Your task to perform on an android device: Go to ESPN.com Image 0: 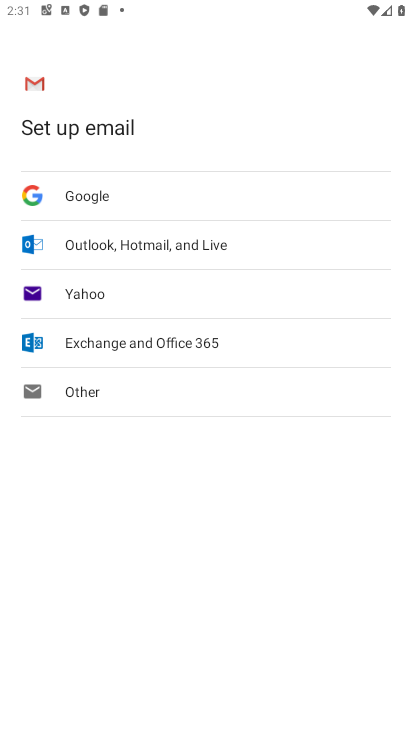
Step 0: press home button
Your task to perform on an android device: Go to ESPN.com Image 1: 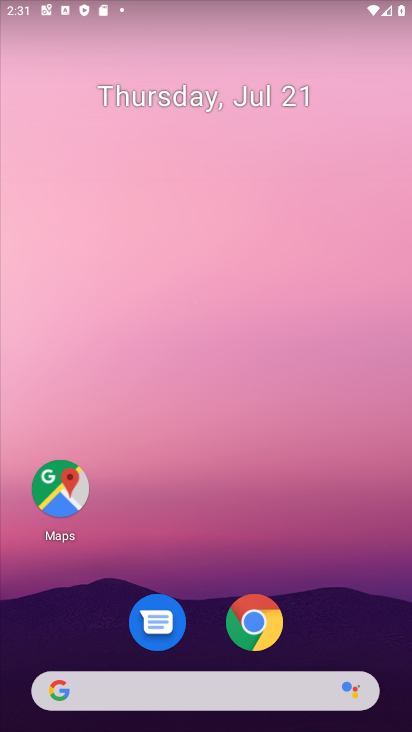
Step 1: click (245, 613)
Your task to perform on an android device: Go to ESPN.com Image 2: 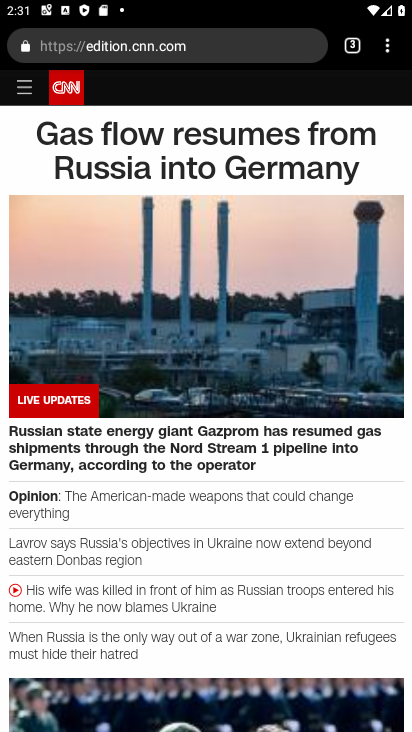
Step 2: click (119, 46)
Your task to perform on an android device: Go to ESPN.com Image 3: 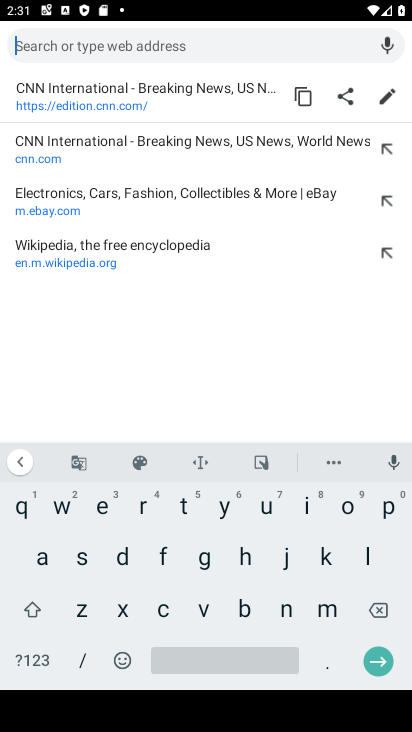
Step 3: click (103, 500)
Your task to perform on an android device: Go to ESPN.com Image 4: 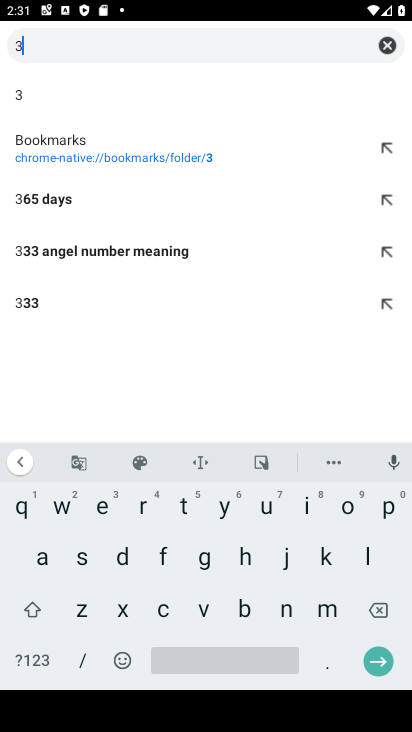
Step 4: click (368, 610)
Your task to perform on an android device: Go to ESPN.com Image 5: 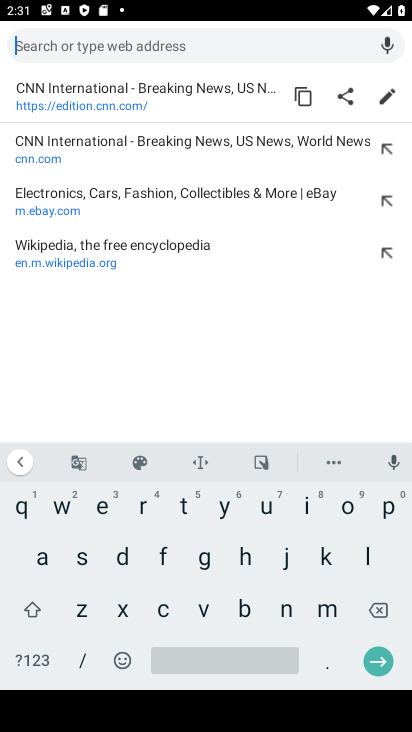
Step 5: click (101, 512)
Your task to perform on an android device: Go to ESPN.com Image 6: 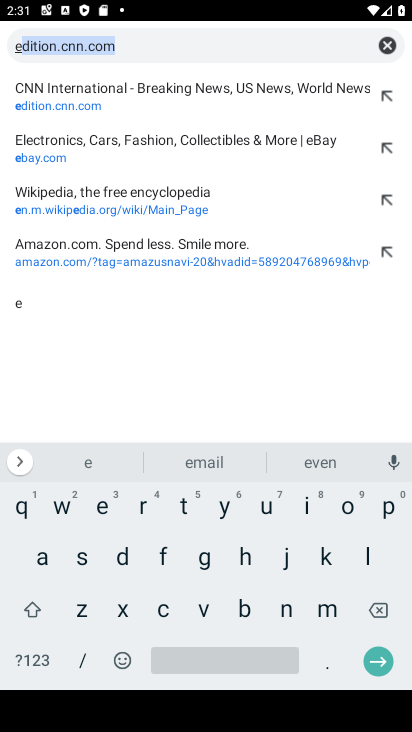
Step 6: click (87, 555)
Your task to perform on an android device: Go to ESPN.com Image 7: 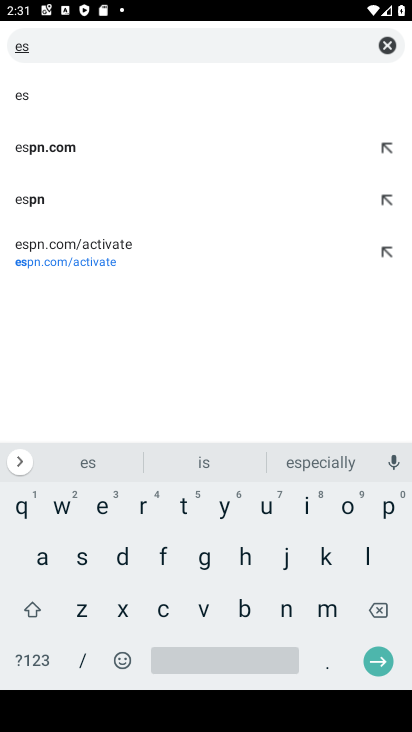
Step 7: click (85, 142)
Your task to perform on an android device: Go to ESPN.com Image 8: 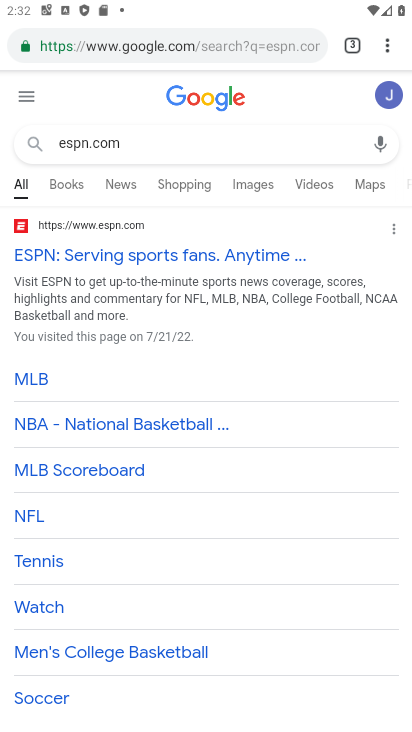
Step 8: task complete